Your task to perform on an android device: Go to ESPN.com Image 0: 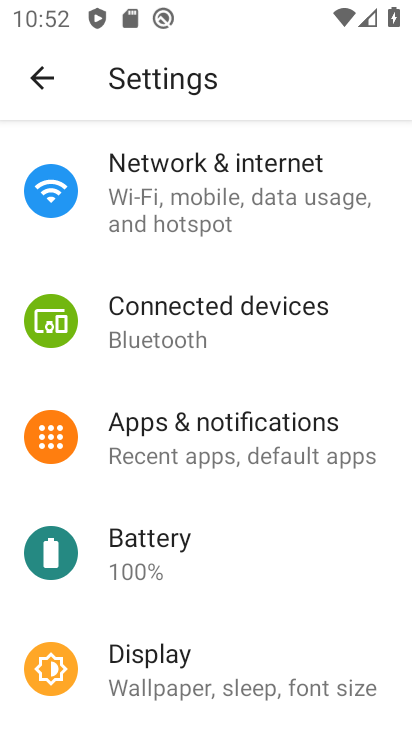
Step 0: press home button
Your task to perform on an android device: Go to ESPN.com Image 1: 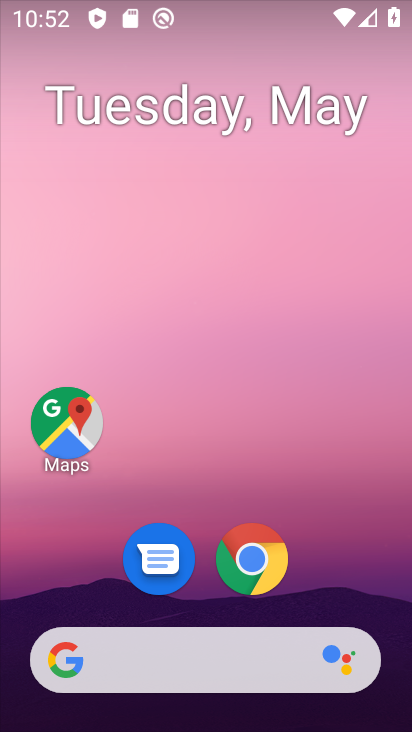
Step 1: click (270, 570)
Your task to perform on an android device: Go to ESPN.com Image 2: 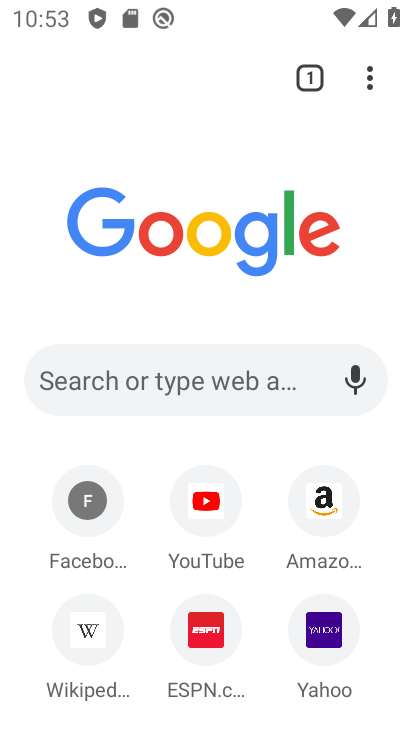
Step 2: click (205, 630)
Your task to perform on an android device: Go to ESPN.com Image 3: 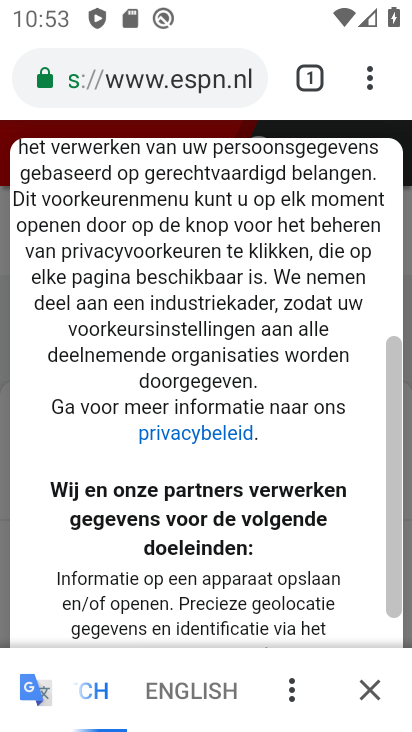
Step 3: task complete